Your task to perform on an android device: open sync settings in chrome Image 0: 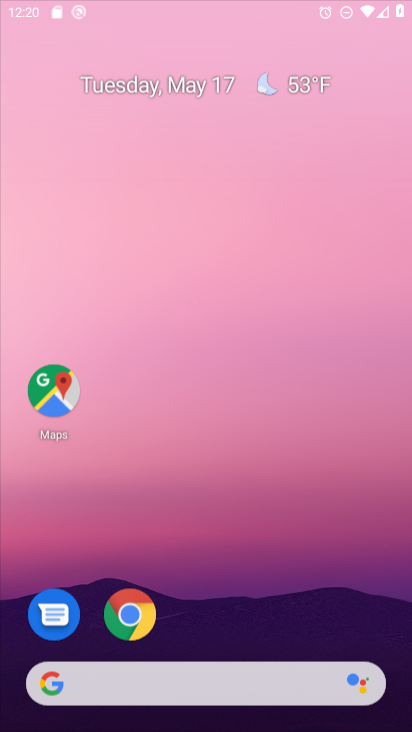
Step 0: click (125, 618)
Your task to perform on an android device: open sync settings in chrome Image 1: 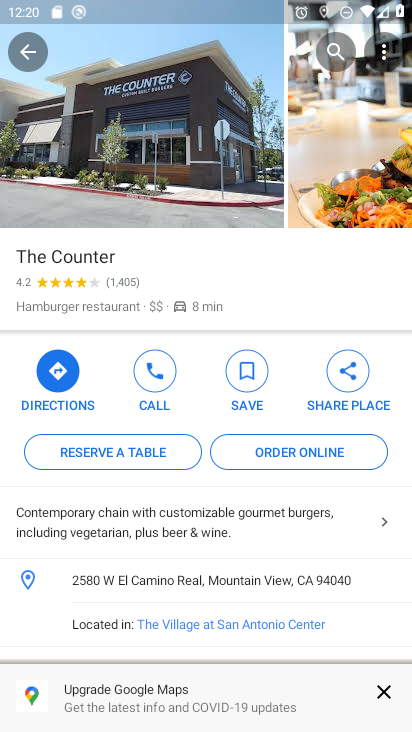
Step 1: press home button
Your task to perform on an android device: open sync settings in chrome Image 2: 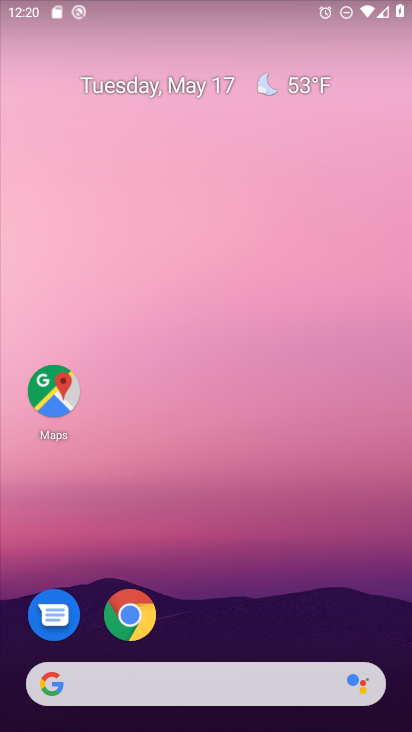
Step 2: click (131, 620)
Your task to perform on an android device: open sync settings in chrome Image 3: 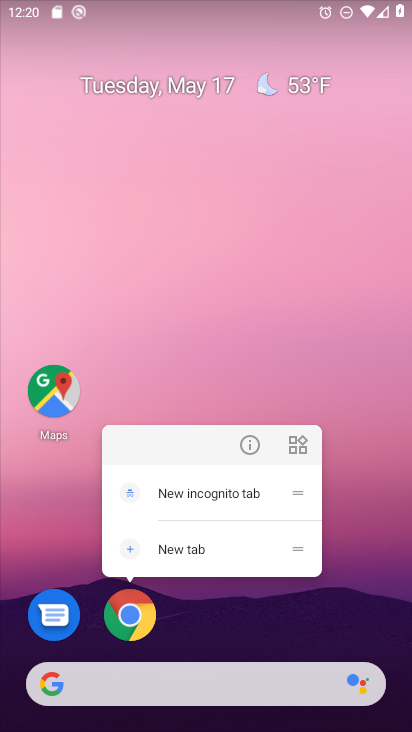
Step 3: click (142, 625)
Your task to perform on an android device: open sync settings in chrome Image 4: 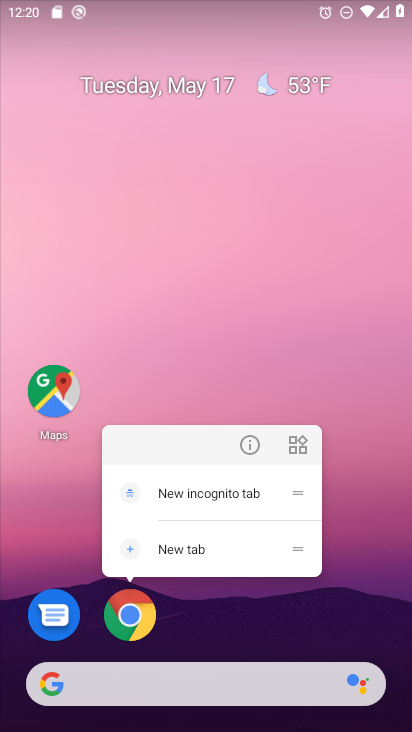
Step 4: click (134, 616)
Your task to perform on an android device: open sync settings in chrome Image 5: 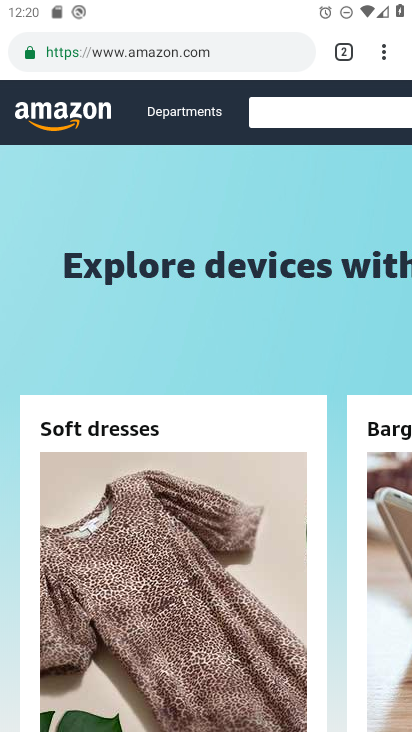
Step 5: click (389, 46)
Your task to perform on an android device: open sync settings in chrome Image 6: 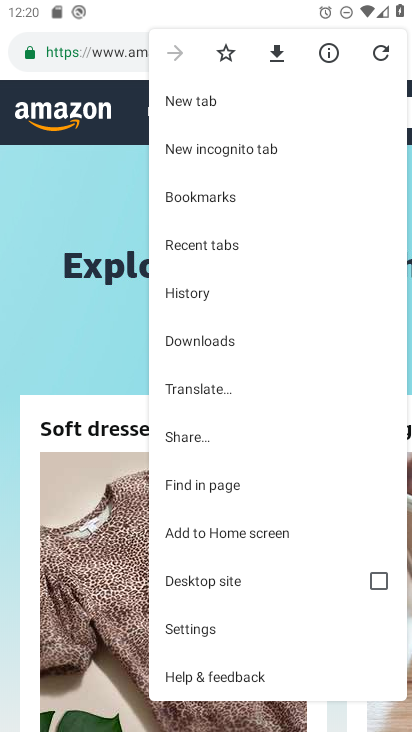
Step 6: click (190, 628)
Your task to perform on an android device: open sync settings in chrome Image 7: 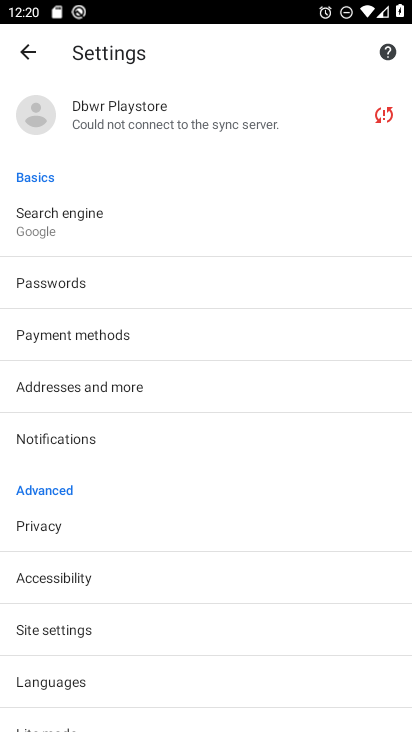
Step 7: click (119, 102)
Your task to perform on an android device: open sync settings in chrome Image 8: 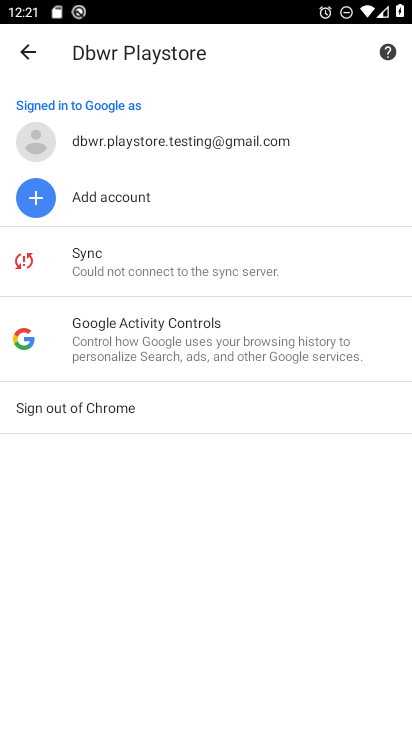
Step 8: click (150, 267)
Your task to perform on an android device: open sync settings in chrome Image 9: 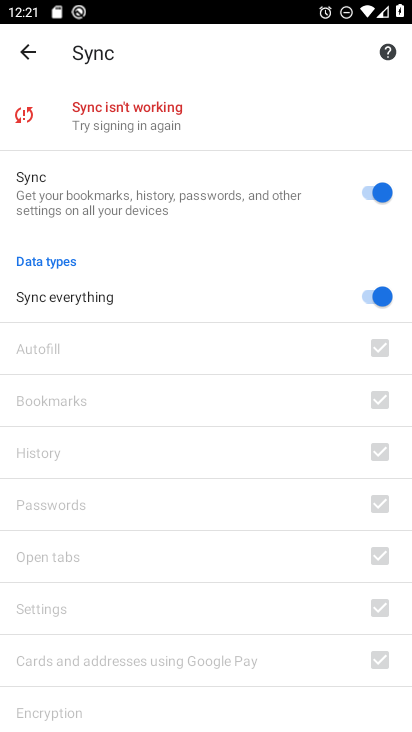
Step 9: task complete